Your task to perform on an android device: Go to display settings Image 0: 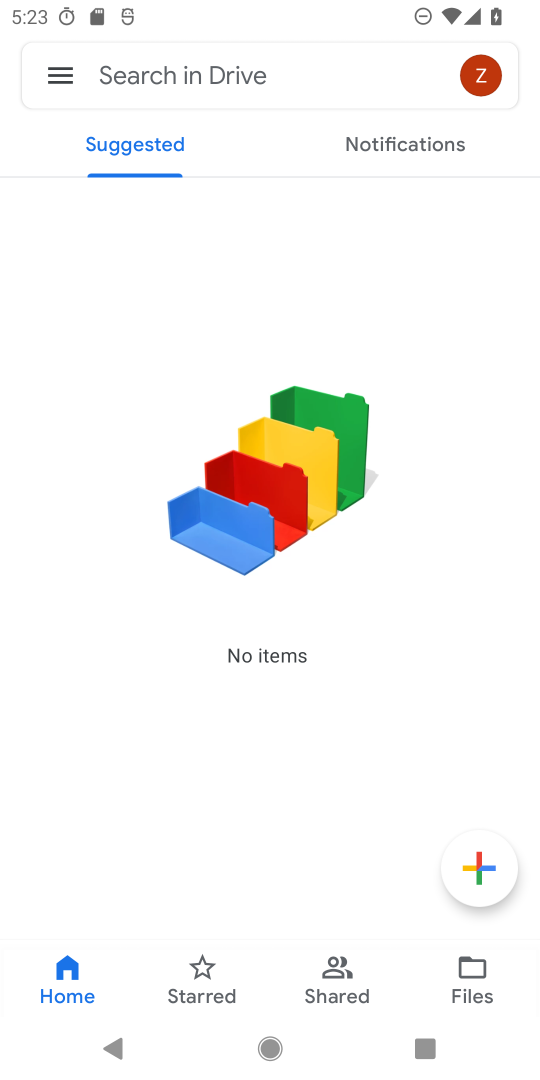
Step 0: press home button
Your task to perform on an android device: Go to display settings Image 1: 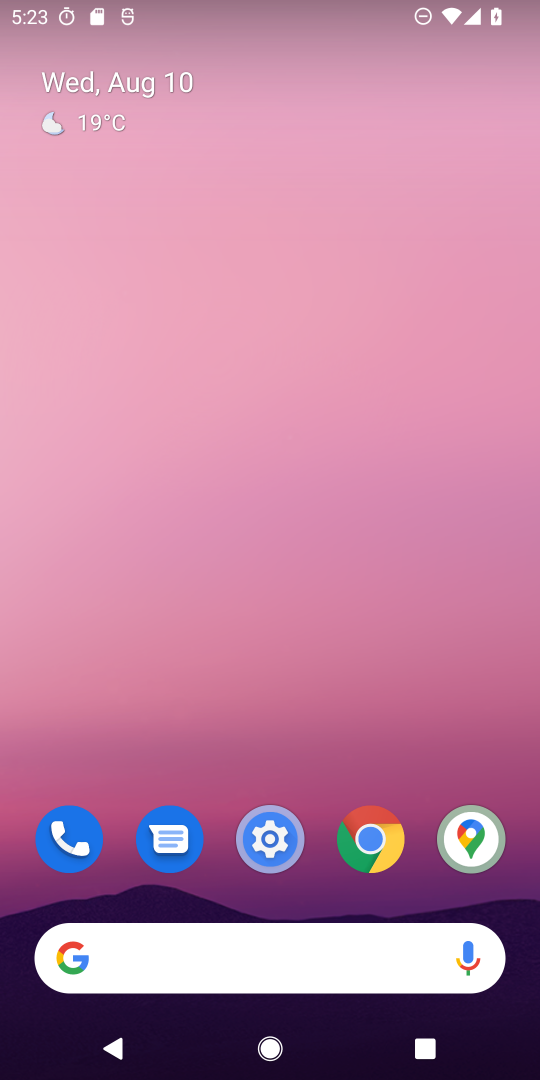
Step 1: click (253, 846)
Your task to perform on an android device: Go to display settings Image 2: 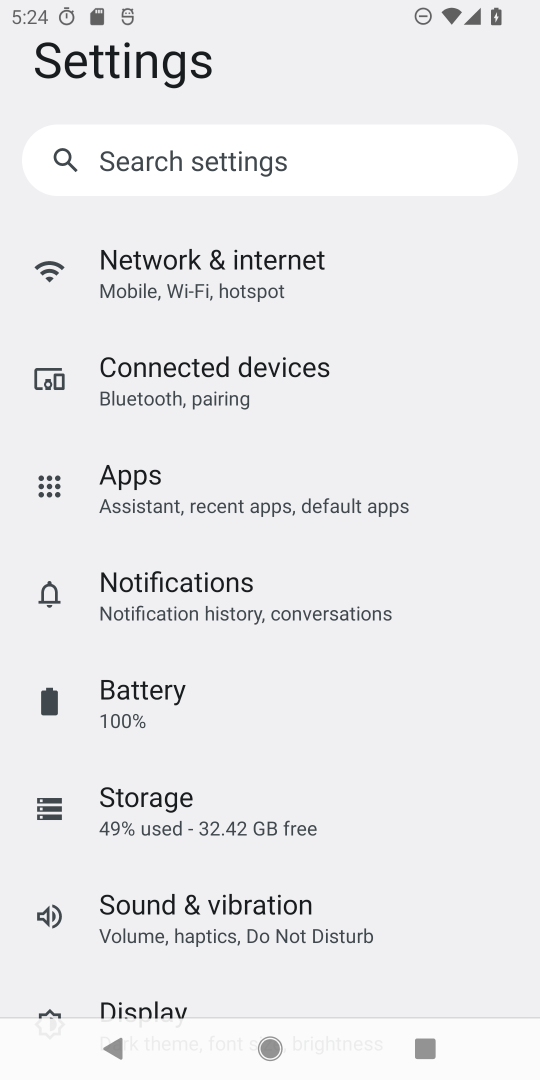
Step 2: drag from (440, 907) to (437, 515)
Your task to perform on an android device: Go to display settings Image 3: 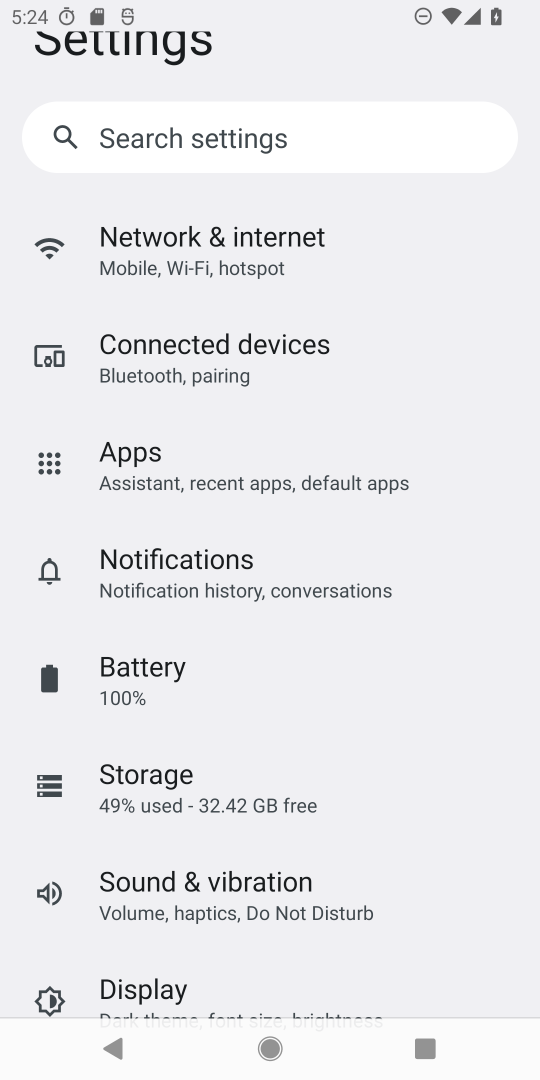
Step 3: click (110, 994)
Your task to perform on an android device: Go to display settings Image 4: 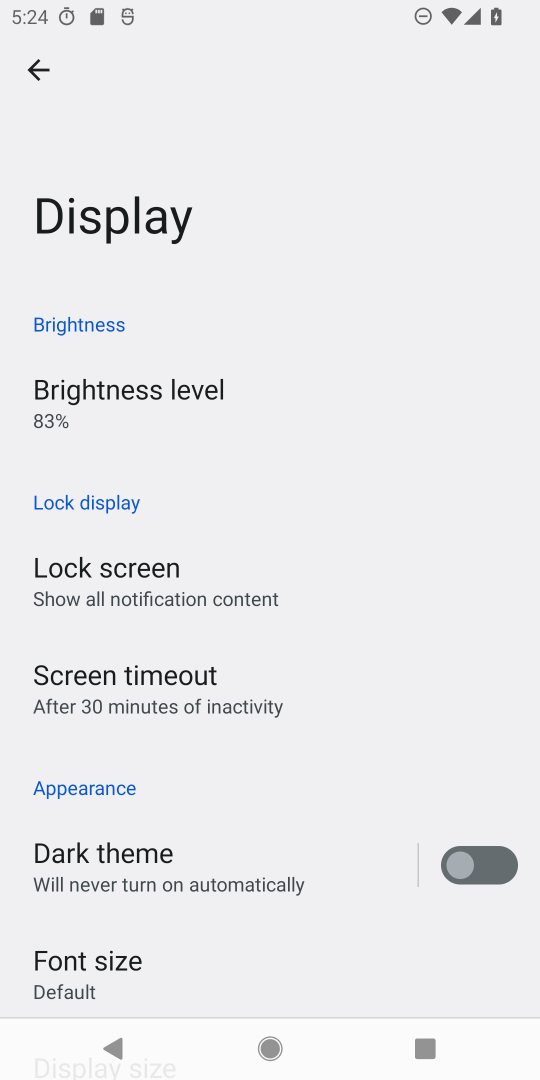
Step 4: task complete